Your task to perform on an android device: Show me productivity apps on the Play Store Image 0: 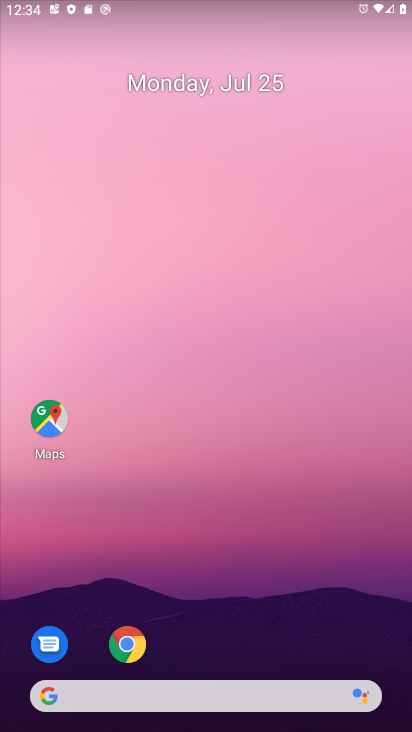
Step 0: drag from (332, 632) to (183, 181)
Your task to perform on an android device: Show me productivity apps on the Play Store Image 1: 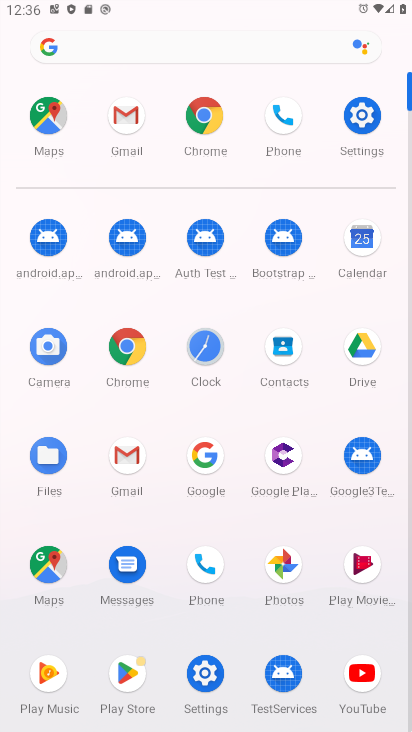
Step 1: click (112, 666)
Your task to perform on an android device: Show me productivity apps on the Play Store Image 2: 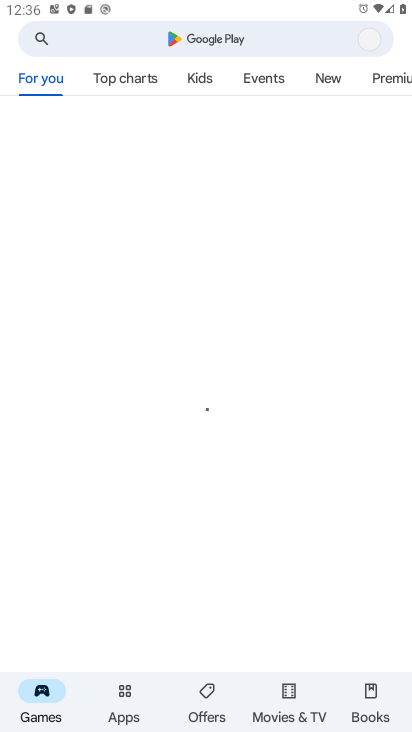
Step 2: task complete